Your task to perform on an android device: clear all cookies in the chrome app Image 0: 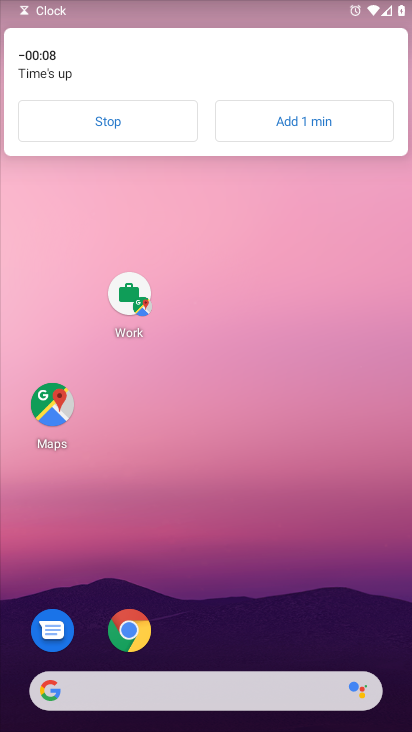
Step 0: click (87, 127)
Your task to perform on an android device: clear all cookies in the chrome app Image 1: 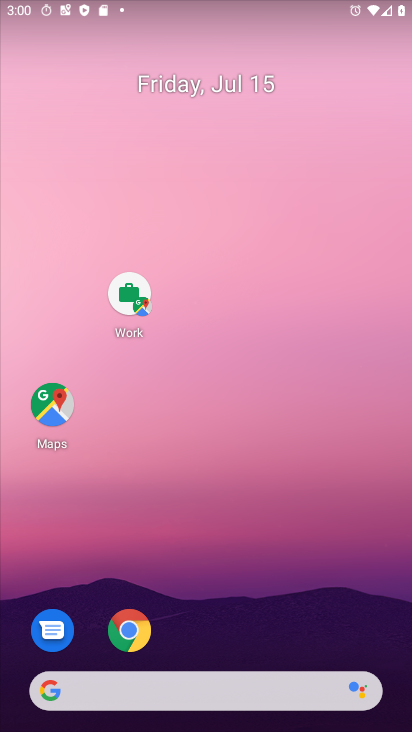
Step 1: click (135, 635)
Your task to perform on an android device: clear all cookies in the chrome app Image 2: 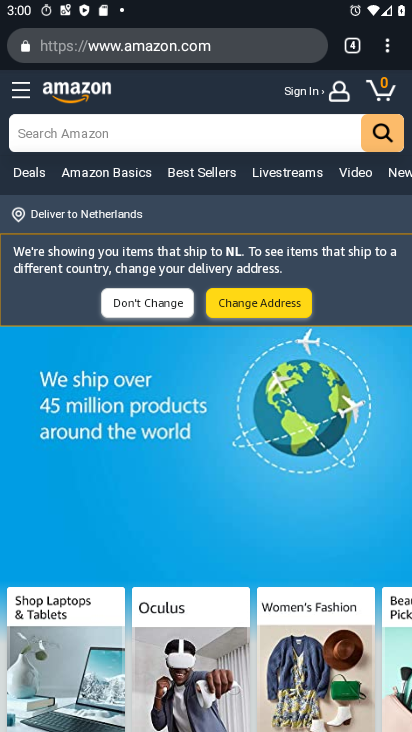
Step 2: click (390, 44)
Your task to perform on an android device: clear all cookies in the chrome app Image 3: 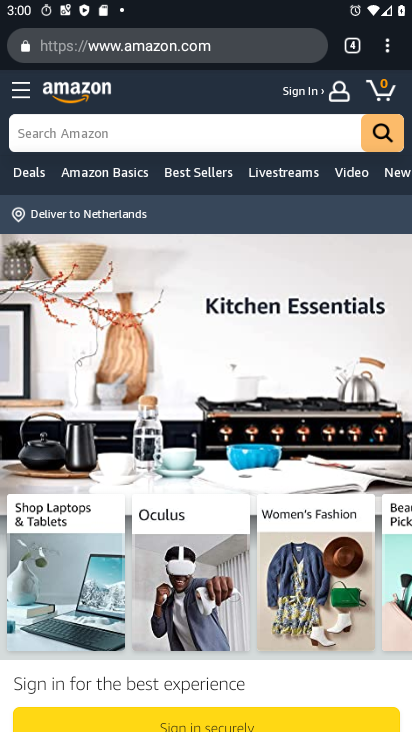
Step 3: click (390, 44)
Your task to perform on an android device: clear all cookies in the chrome app Image 4: 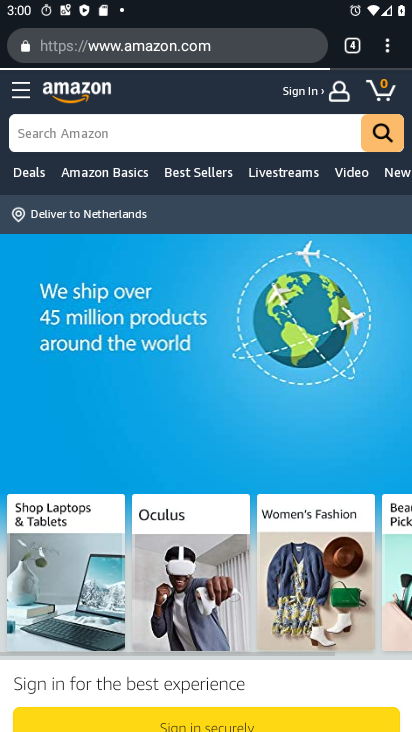
Step 4: drag from (390, 44) to (231, 265)
Your task to perform on an android device: clear all cookies in the chrome app Image 5: 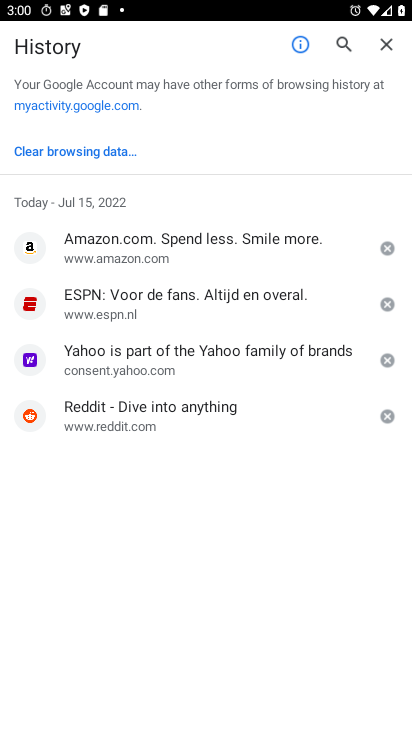
Step 5: click (110, 146)
Your task to perform on an android device: clear all cookies in the chrome app Image 6: 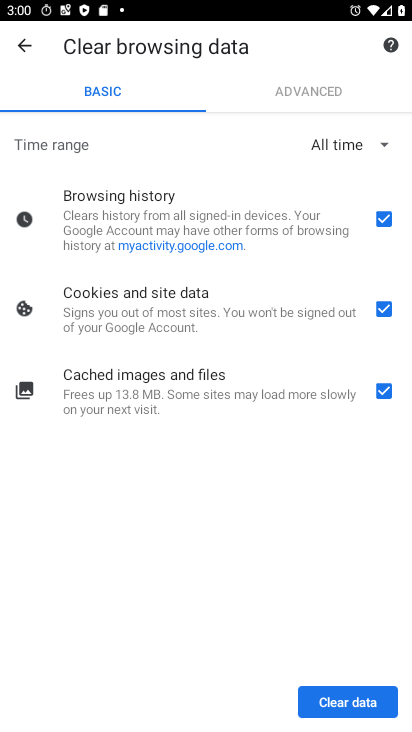
Step 6: click (343, 699)
Your task to perform on an android device: clear all cookies in the chrome app Image 7: 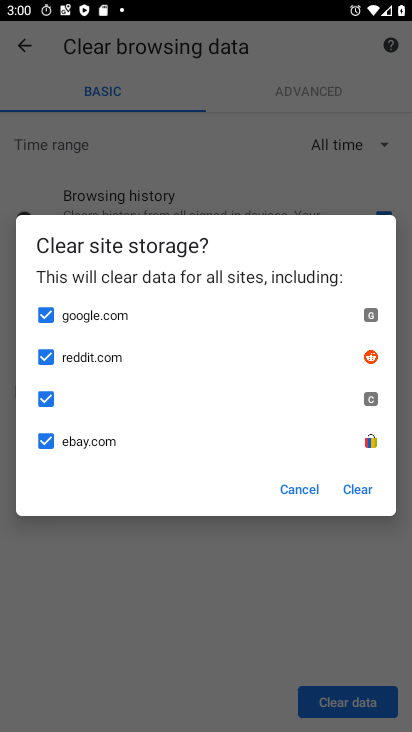
Step 7: click (361, 485)
Your task to perform on an android device: clear all cookies in the chrome app Image 8: 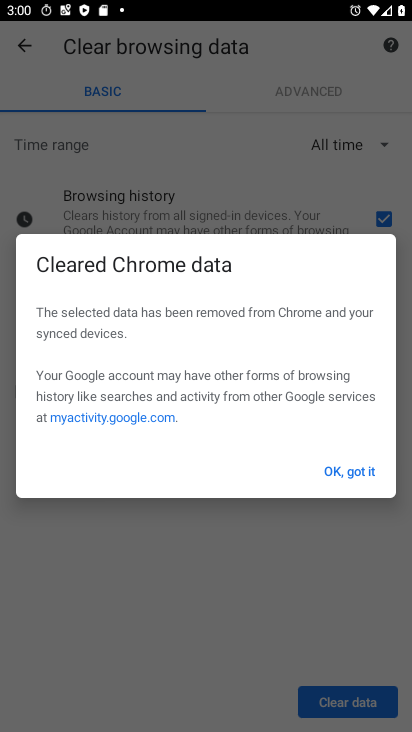
Step 8: click (361, 485)
Your task to perform on an android device: clear all cookies in the chrome app Image 9: 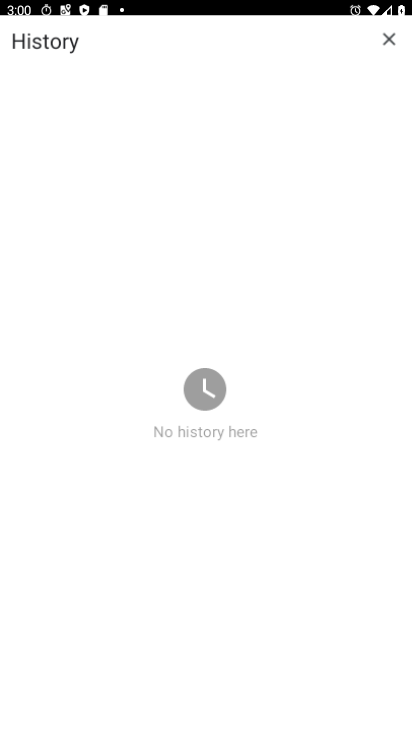
Step 9: click (348, 472)
Your task to perform on an android device: clear all cookies in the chrome app Image 10: 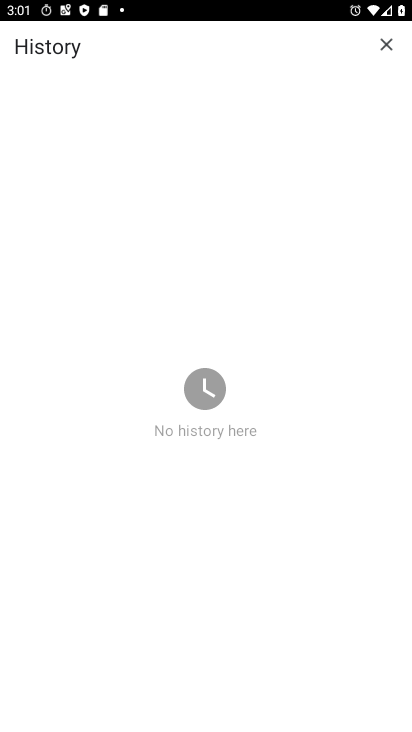
Step 10: task complete